Your task to perform on an android device: Do I have any events today? Image 0: 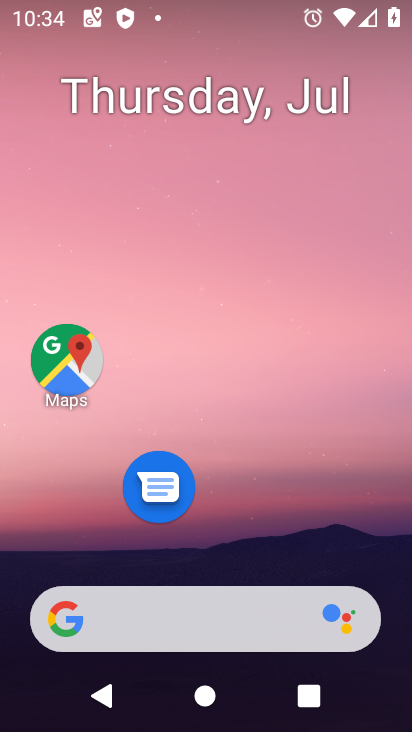
Step 0: drag from (243, 519) to (367, 14)
Your task to perform on an android device: Do I have any events today? Image 1: 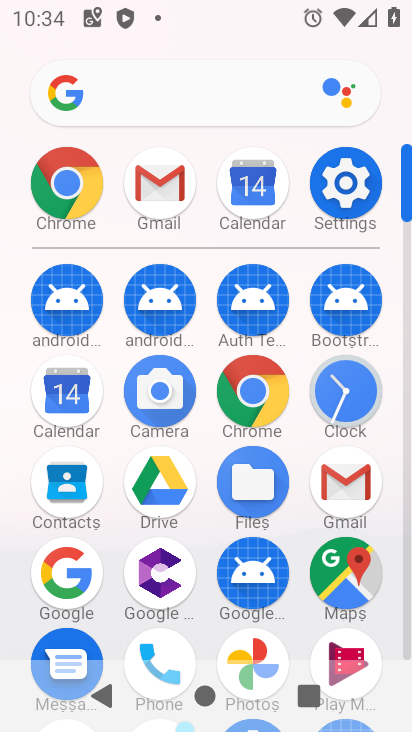
Step 1: drag from (250, 471) to (261, 295)
Your task to perform on an android device: Do I have any events today? Image 2: 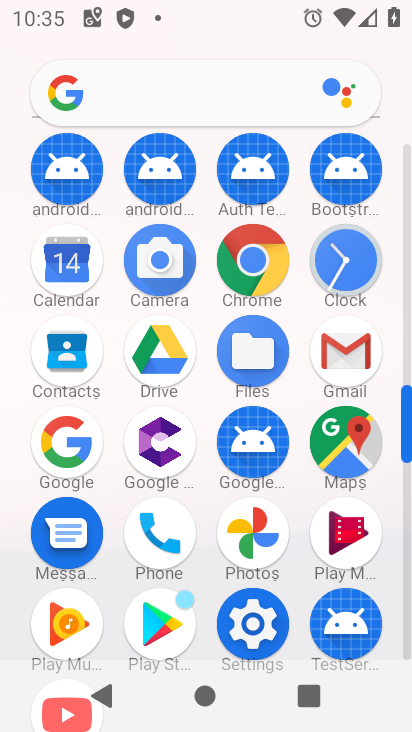
Step 2: click (62, 274)
Your task to perform on an android device: Do I have any events today? Image 3: 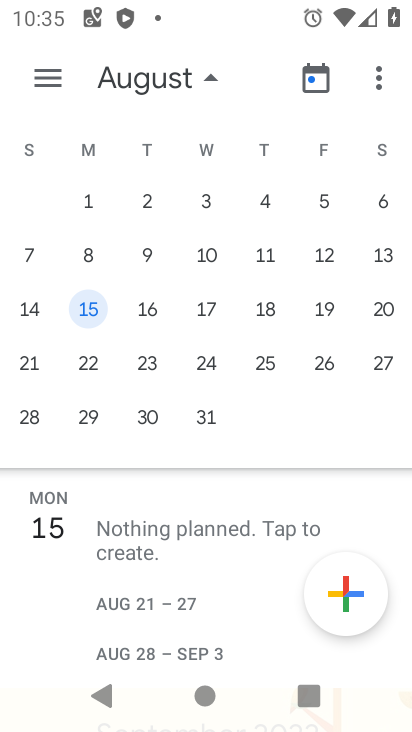
Step 3: drag from (85, 344) to (397, 346)
Your task to perform on an android device: Do I have any events today? Image 4: 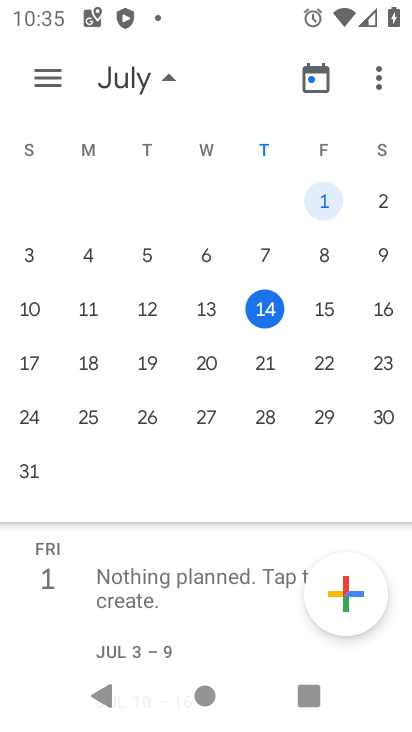
Step 4: click (262, 310)
Your task to perform on an android device: Do I have any events today? Image 5: 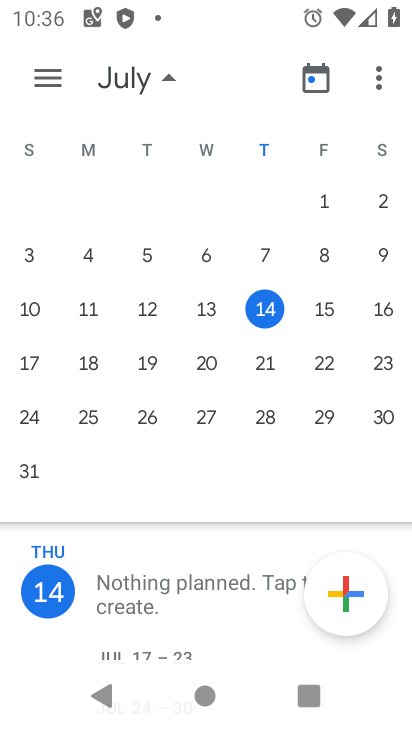
Step 5: click (262, 321)
Your task to perform on an android device: Do I have any events today? Image 6: 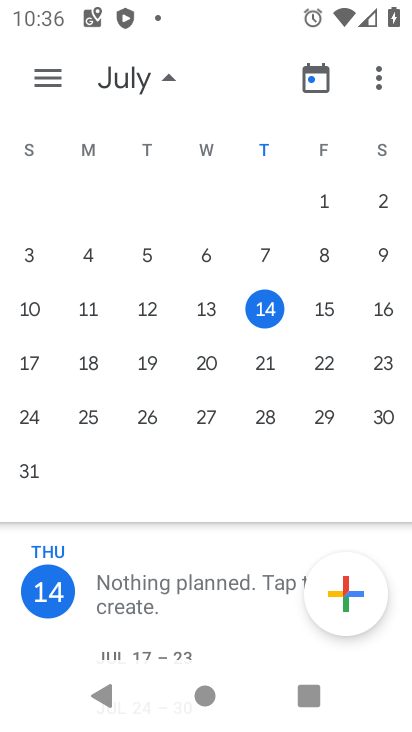
Step 6: task complete